Your task to perform on an android device: Open notification settings Image 0: 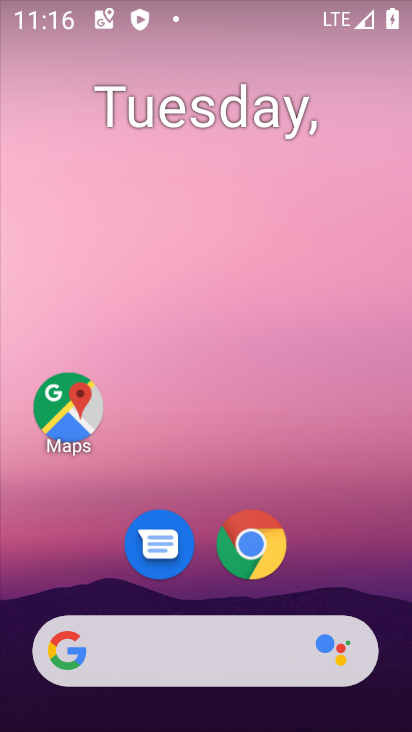
Step 0: drag from (406, 629) to (287, 73)
Your task to perform on an android device: Open notification settings Image 1: 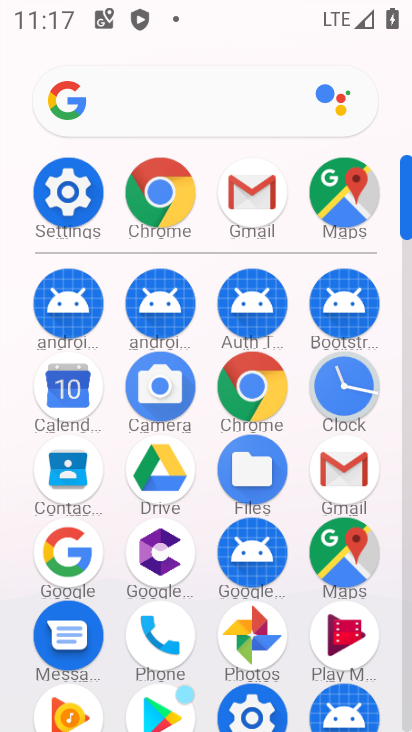
Step 1: click (62, 193)
Your task to perform on an android device: Open notification settings Image 2: 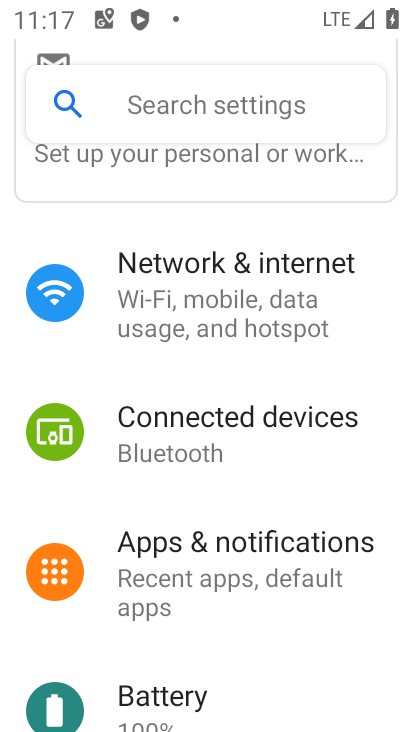
Step 2: click (247, 556)
Your task to perform on an android device: Open notification settings Image 3: 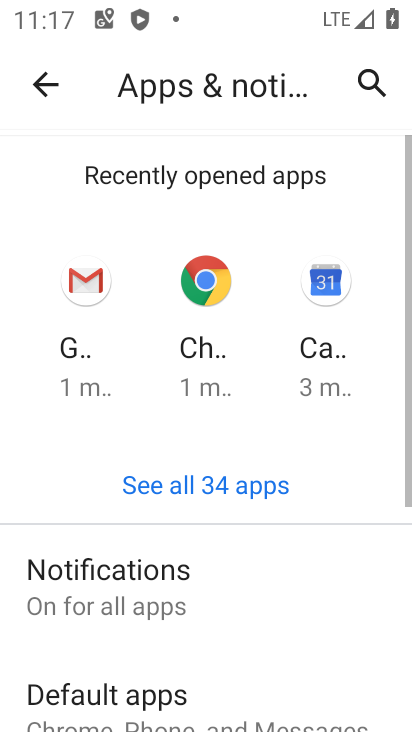
Step 3: click (238, 564)
Your task to perform on an android device: Open notification settings Image 4: 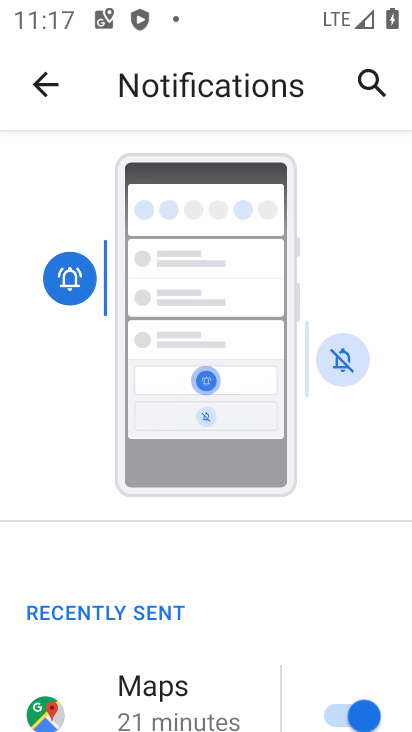
Step 4: task complete